Your task to perform on an android device: Do I have any events today? Image 0: 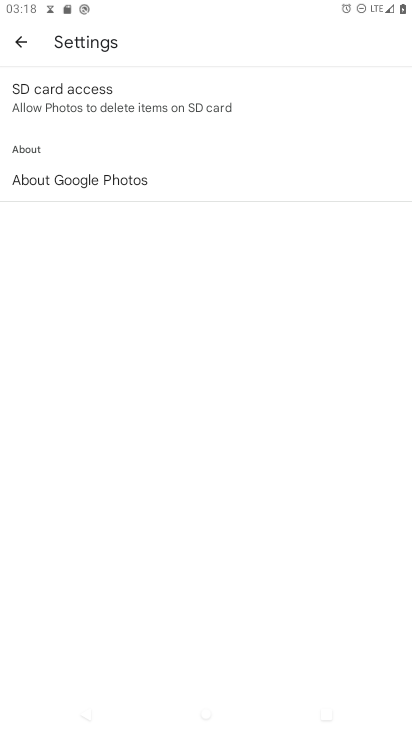
Step 0: press home button
Your task to perform on an android device: Do I have any events today? Image 1: 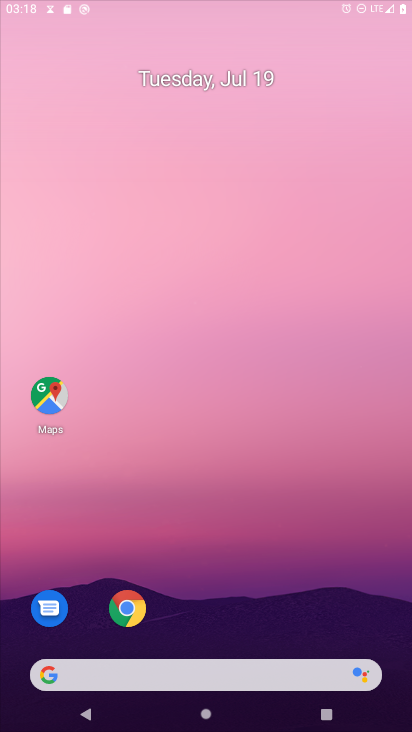
Step 1: drag from (258, 670) to (268, 58)
Your task to perform on an android device: Do I have any events today? Image 2: 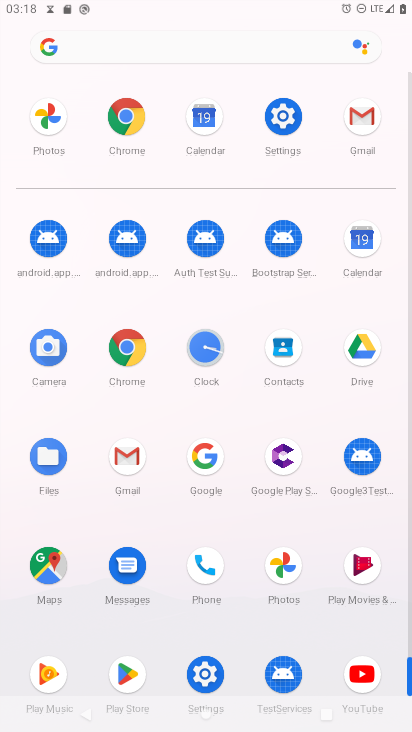
Step 2: click (374, 248)
Your task to perform on an android device: Do I have any events today? Image 3: 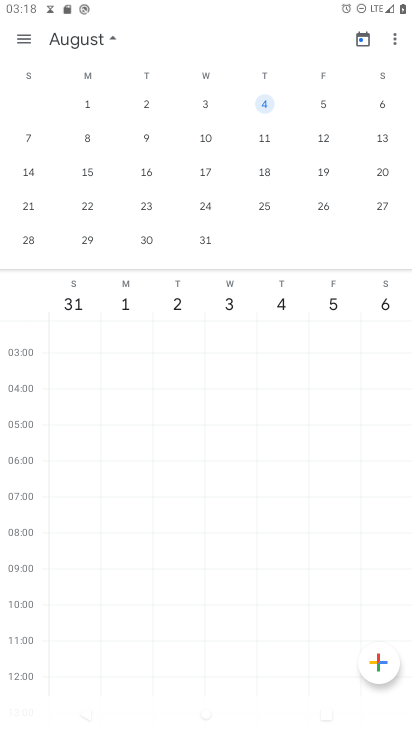
Step 3: drag from (38, 162) to (395, 167)
Your task to perform on an android device: Do I have any events today? Image 4: 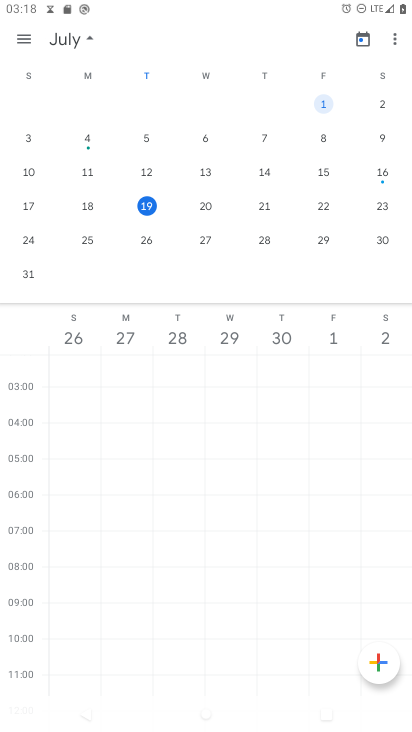
Step 4: click (151, 201)
Your task to perform on an android device: Do I have any events today? Image 5: 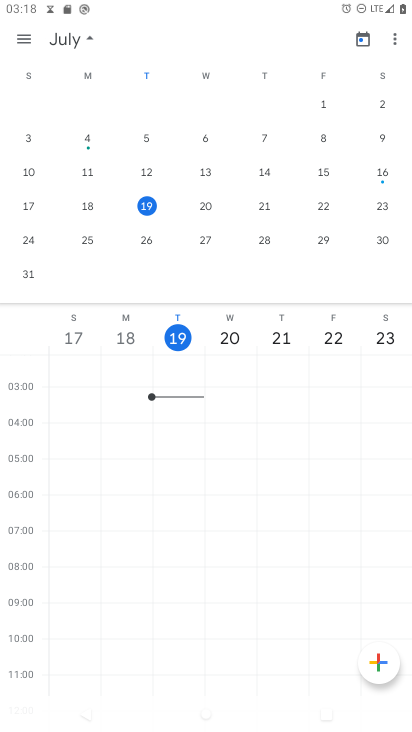
Step 5: task complete